Your task to perform on an android device: What is the news today? Image 0: 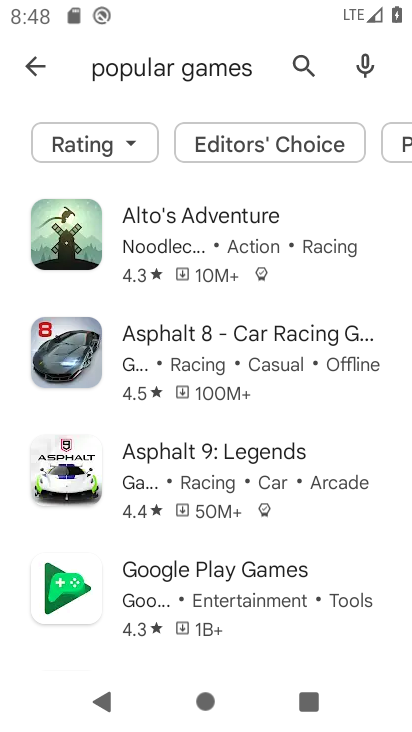
Step 0: press home button
Your task to perform on an android device: What is the news today? Image 1: 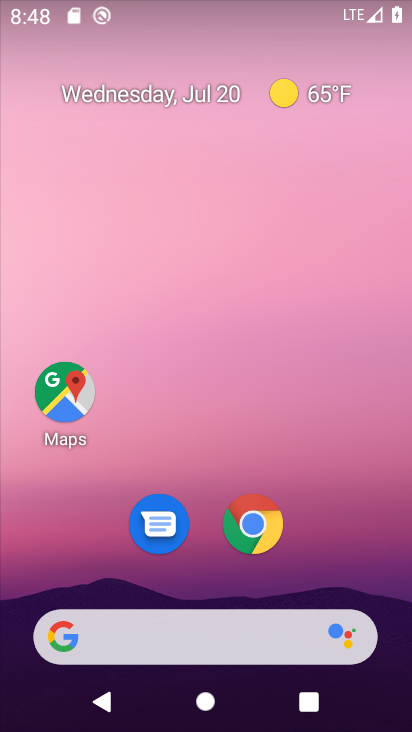
Step 1: click (217, 647)
Your task to perform on an android device: What is the news today? Image 2: 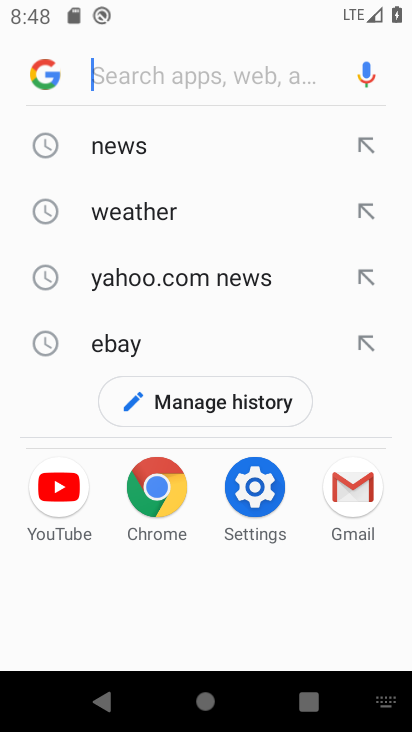
Step 2: click (126, 139)
Your task to perform on an android device: What is the news today? Image 3: 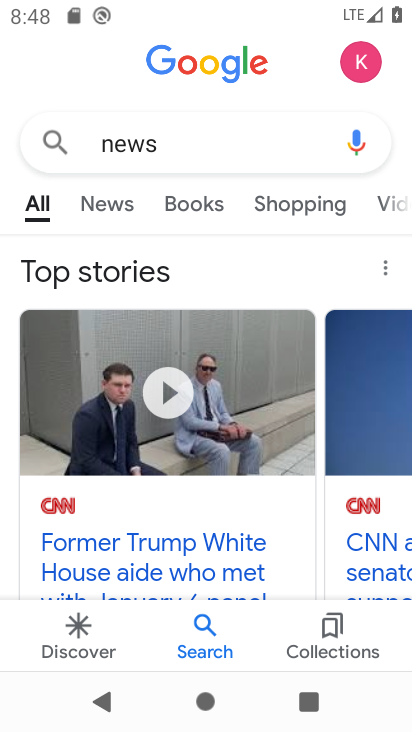
Step 3: click (229, 543)
Your task to perform on an android device: What is the news today? Image 4: 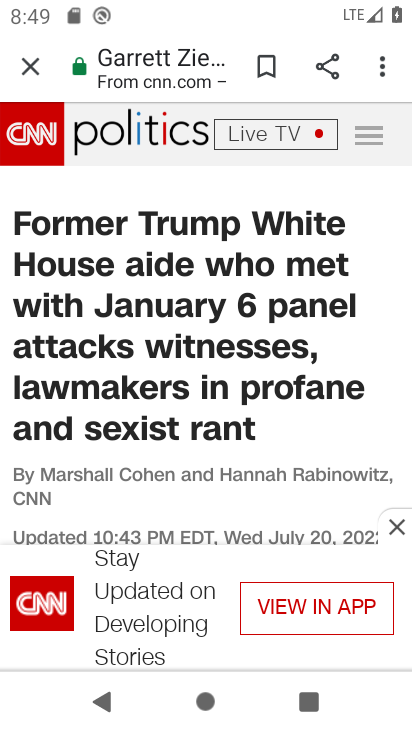
Step 4: task complete